Your task to perform on an android device: Open the map Image 0: 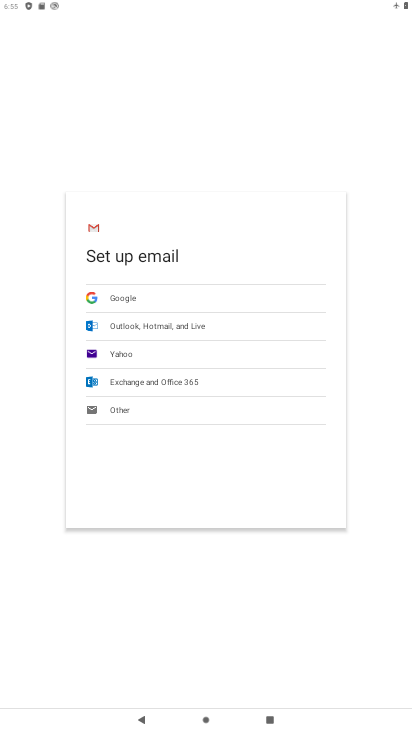
Step 0: press home button
Your task to perform on an android device: Open the map Image 1: 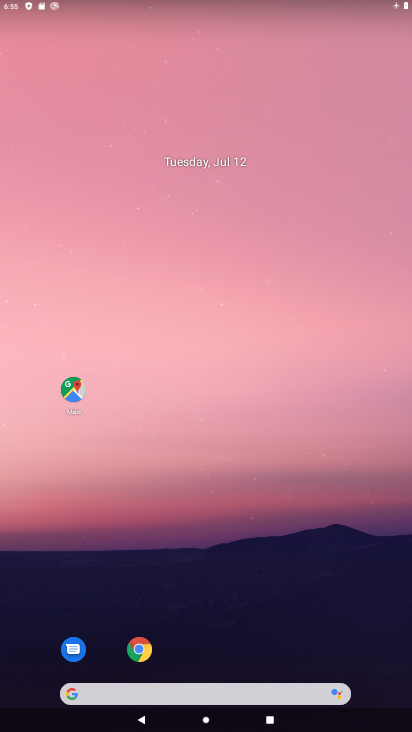
Step 1: click (77, 389)
Your task to perform on an android device: Open the map Image 2: 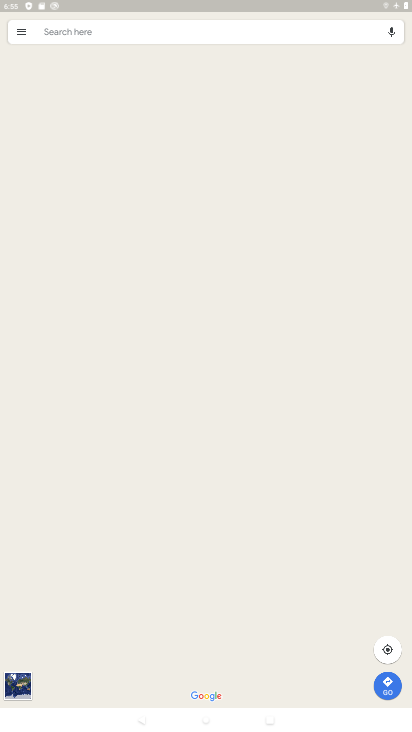
Step 2: task complete